Your task to perform on an android device: turn off notifications settings in the gmail app Image 0: 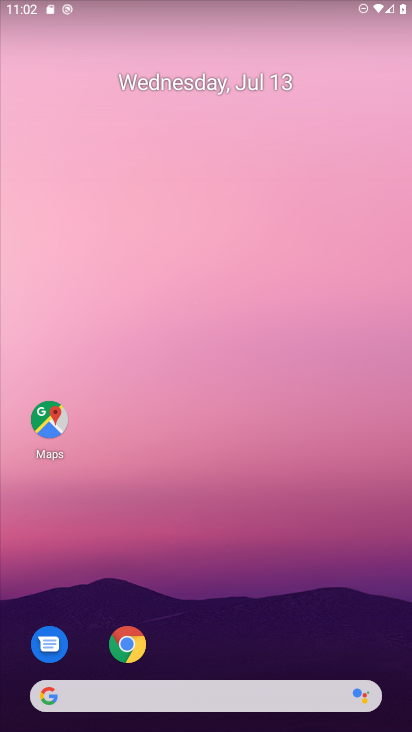
Step 0: click (407, 448)
Your task to perform on an android device: turn off notifications settings in the gmail app Image 1: 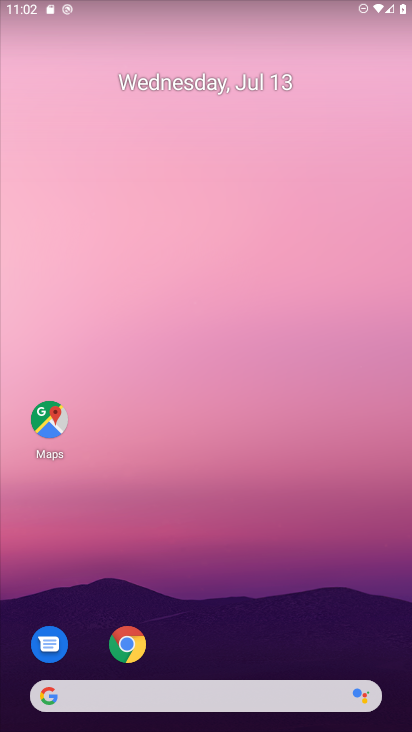
Step 1: drag from (221, 558) to (201, 159)
Your task to perform on an android device: turn off notifications settings in the gmail app Image 2: 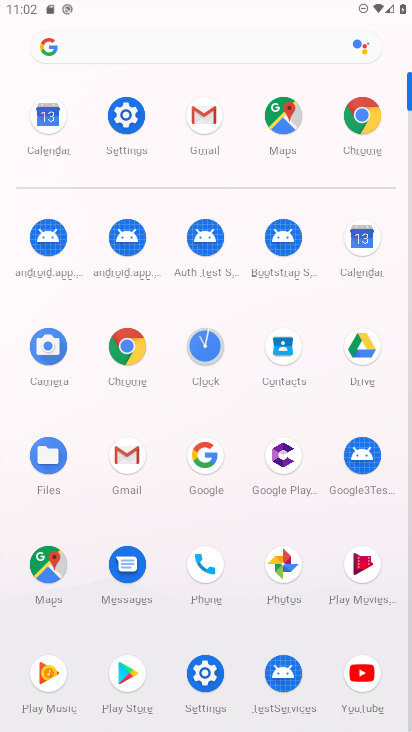
Step 2: click (192, 98)
Your task to perform on an android device: turn off notifications settings in the gmail app Image 3: 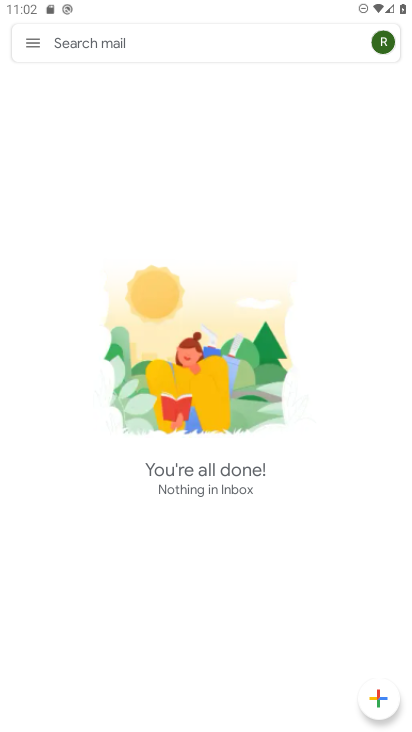
Step 3: click (31, 38)
Your task to perform on an android device: turn off notifications settings in the gmail app Image 4: 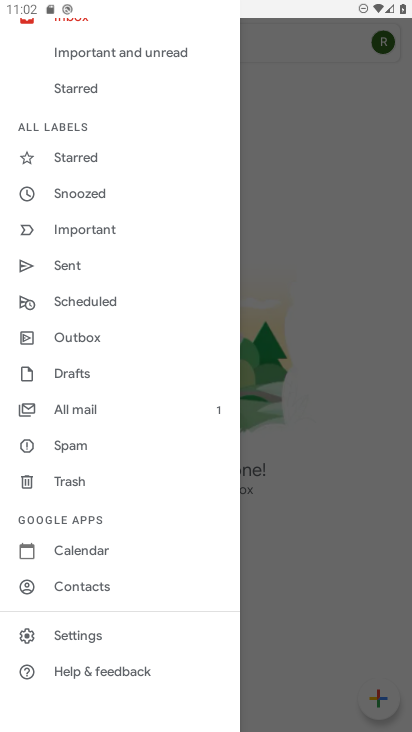
Step 4: click (84, 637)
Your task to perform on an android device: turn off notifications settings in the gmail app Image 5: 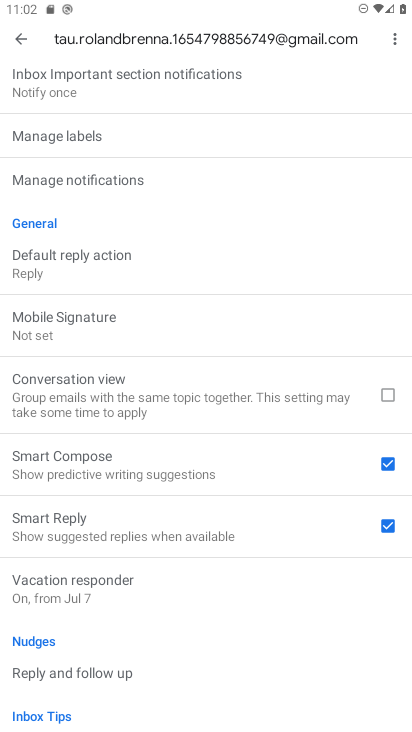
Step 5: click (100, 178)
Your task to perform on an android device: turn off notifications settings in the gmail app Image 6: 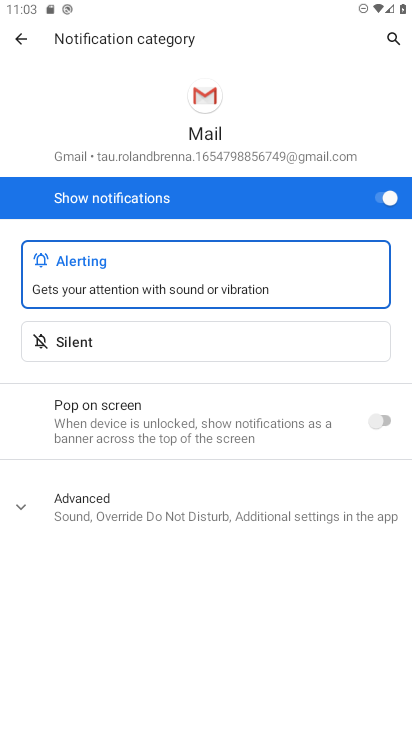
Step 6: click (388, 203)
Your task to perform on an android device: turn off notifications settings in the gmail app Image 7: 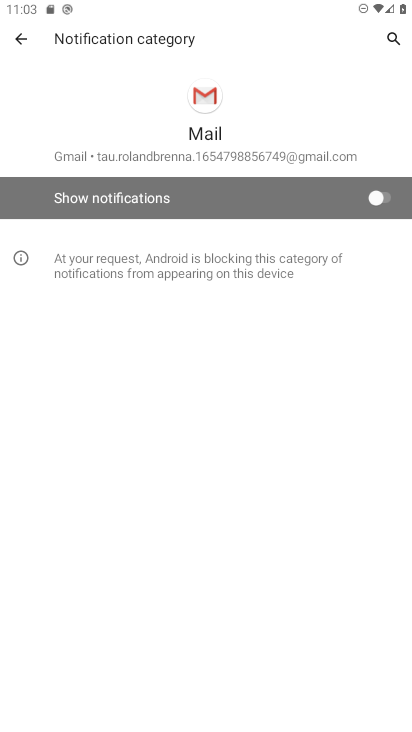
Step 7: task complete